Your task to perform on an android device: Go to sound settings Image 0: 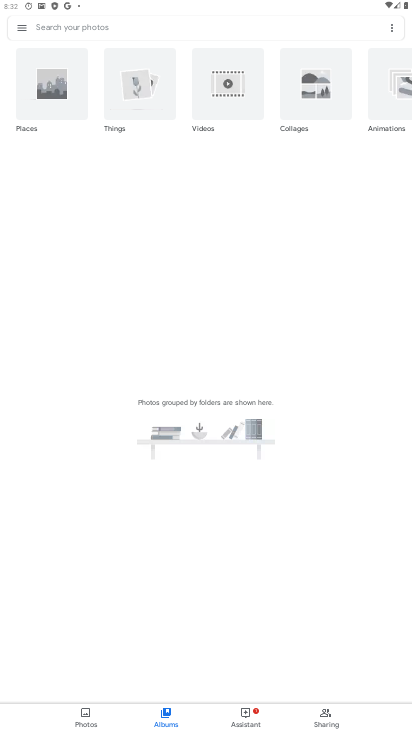
Step 0: press home button
Your task to perform on an android device: Go to sound settings Image 1: 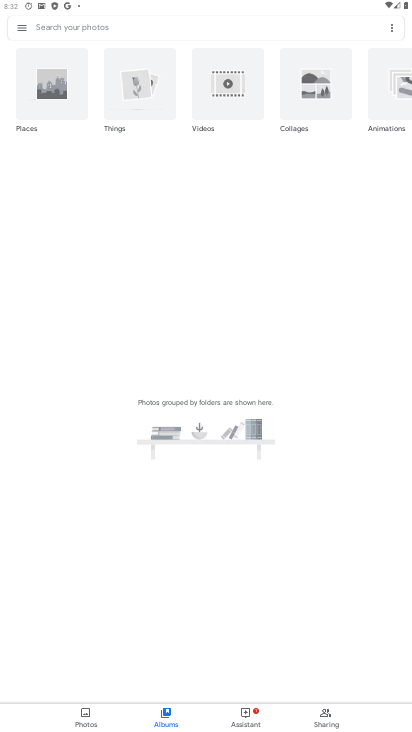
Step 1: press home button
Your task to perform on an android device: Go to sound settings Image 2: 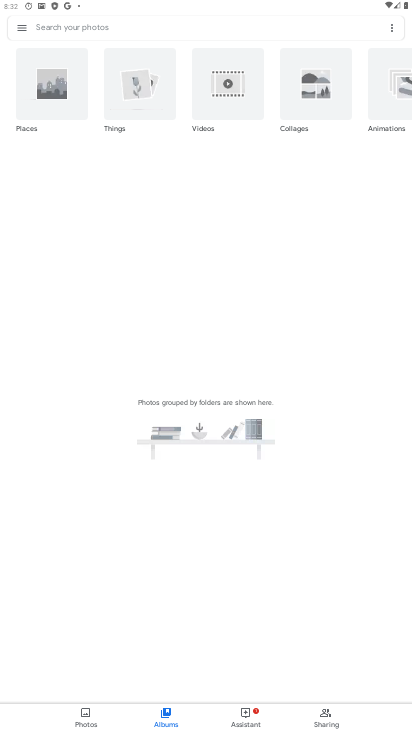
Step 2: click (247, 205)
Your task to perform on an android device: Go to sound settings Image 3: 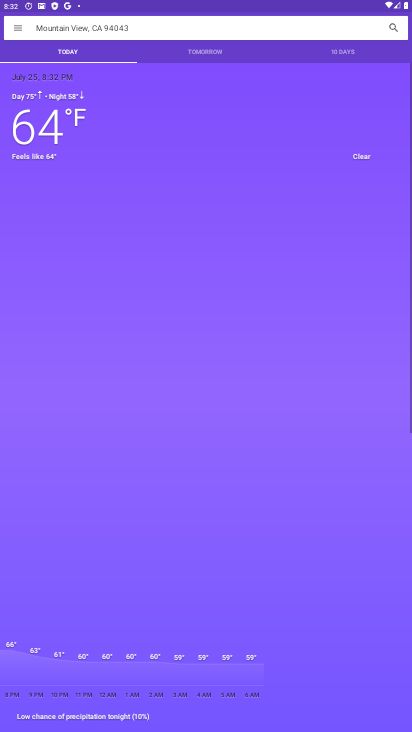
Step 3: press home button
Your task to perform on an android device: Go to sound settings Image 4: 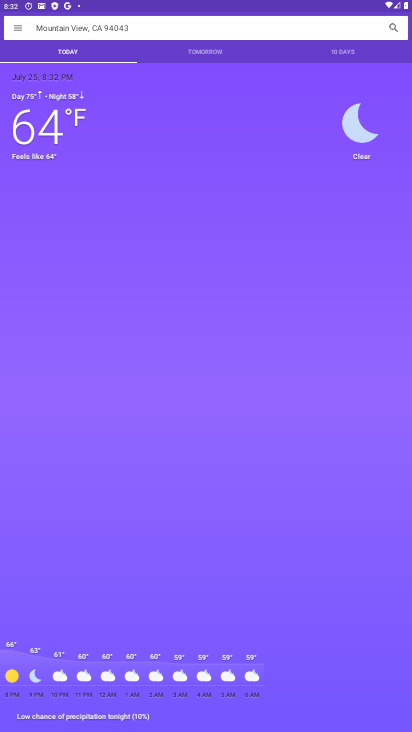
Step 4: press home button
Your task to perform on an android device: Go to sound settings Image 5: 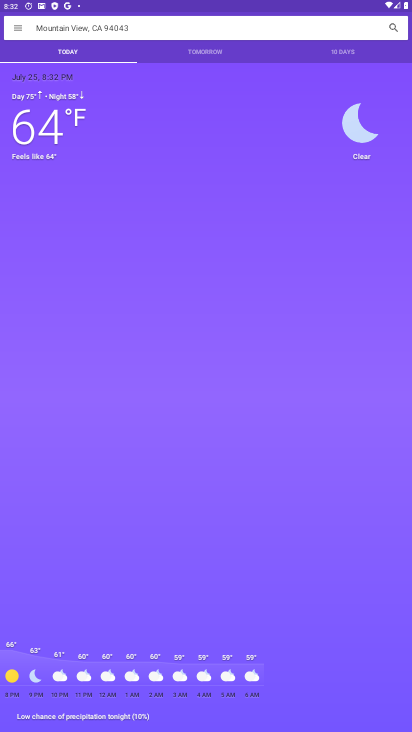
Step 5: drag from (262, 371) to (275, 171)
Your task to perform on an android device: Go to sound settings Image 6: 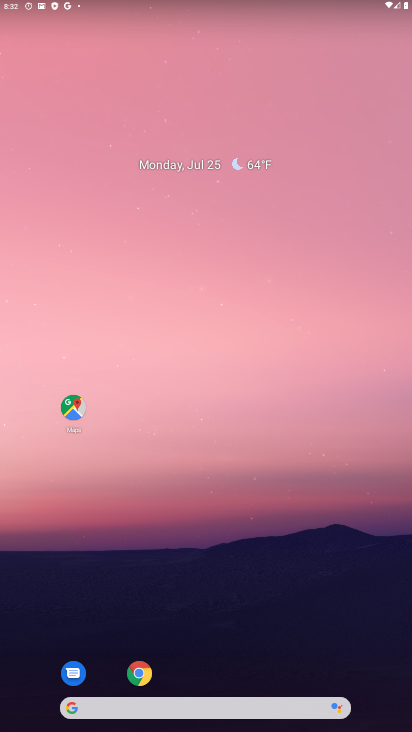
Step 6: drag from (199, 613) to (266, 88)
Your task to perform on an android device: Go to sound settings Image 7: 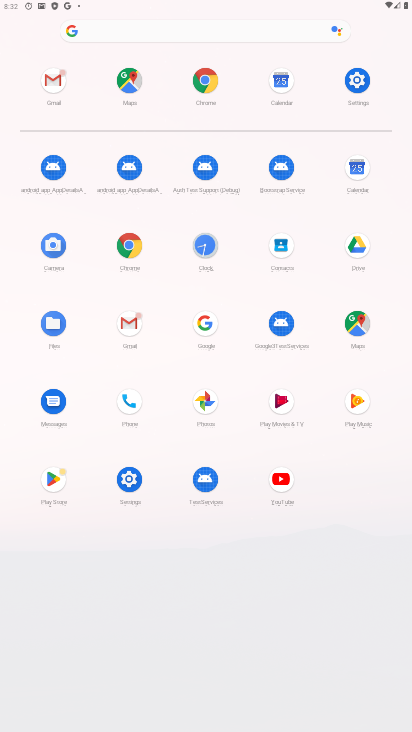
Step 7: click (351, 82)
Your task to perform on an android device: Go to sound settings Image 8: 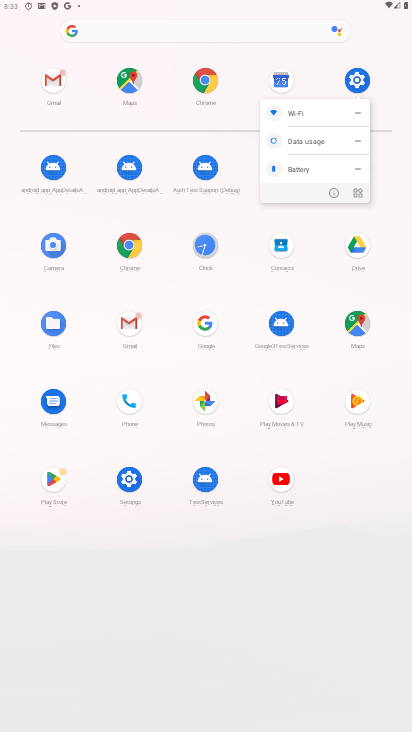
Step 8: click (337, 194)
Your task to perform on an android device: Go to sound settings Image 9: 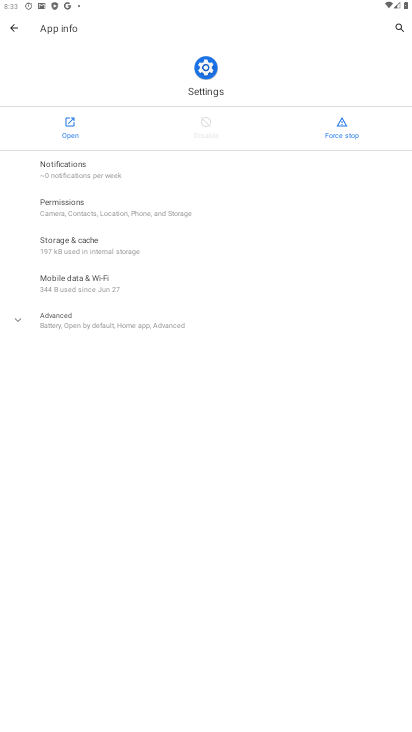
Step 9: click (71, 121)
Your task to perform on an android device: Go to sound settings Image 10: 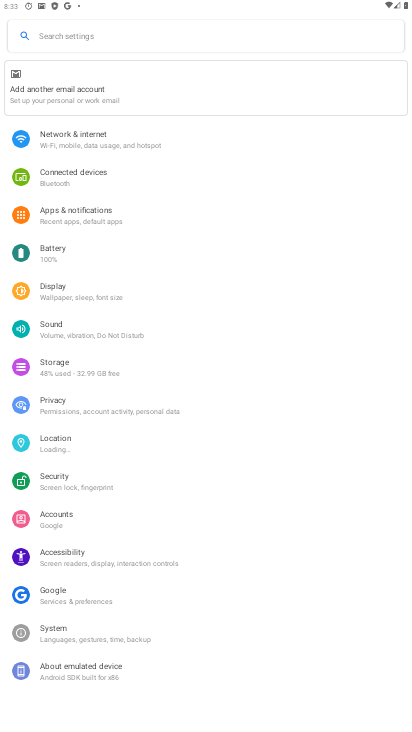
Step 10: click (60, 327)
Your task to perform on an android device: Go to sound settings Image 11: 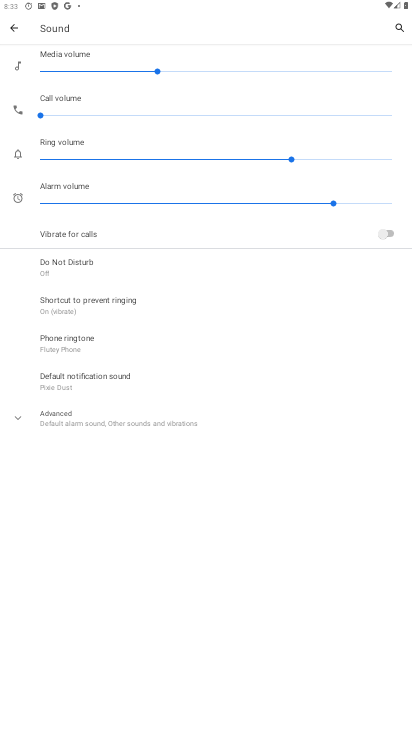
Step 11: task complete